Your task to perform on an android device: find snoozed emails in the gmail app Image 0: 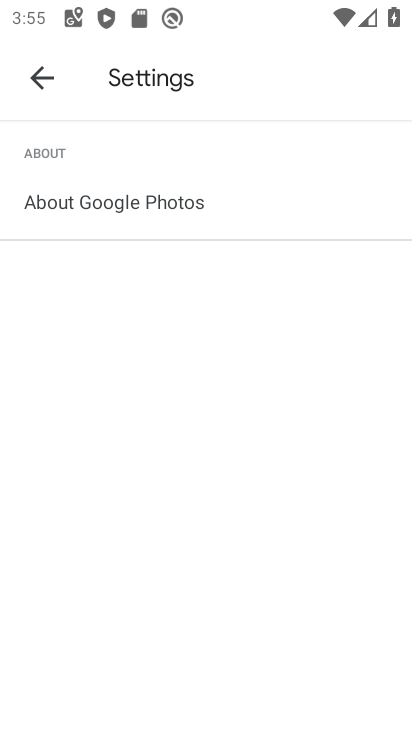
Step 0: press home button
Your task to perform on an android device: find snoozed emails in the gmail app Image 1: 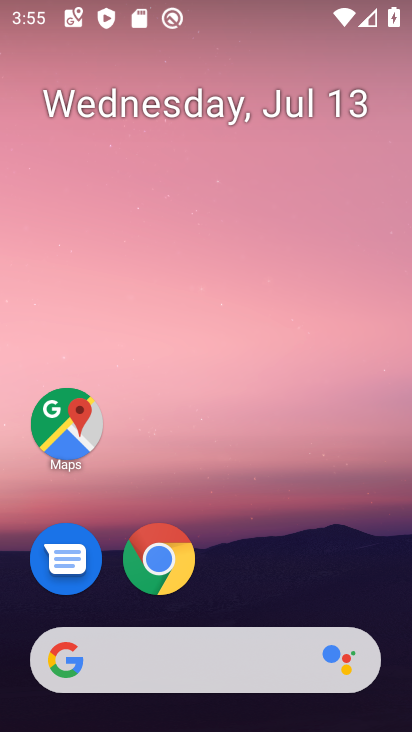
Step 1: drag from (274, 590) to (231, 103)
Your task to perform on an android device: find snoozed emails in the gmail app Image 2: 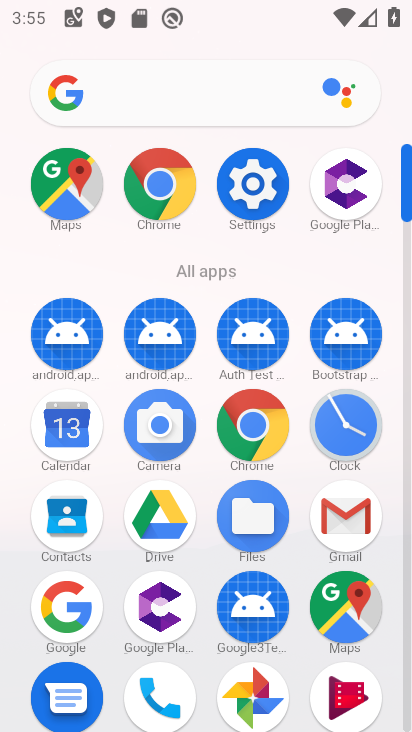
Step 2: click (339, 507)
Your task to perform on an android device: find snoozed emails in the gmail app Image 3: 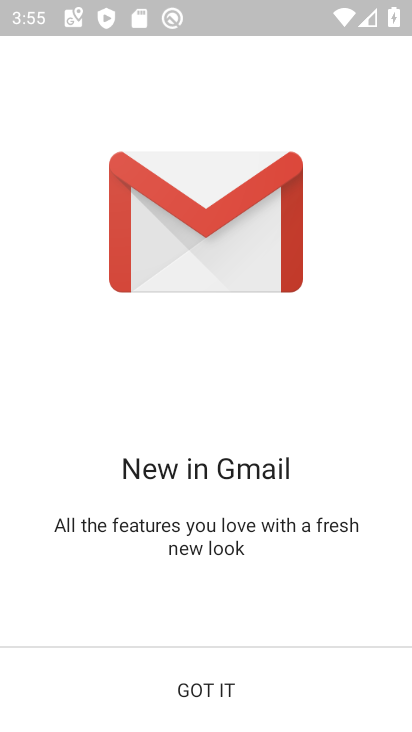
Step 3: click (216, 687)
Your task to perform on an android device: find snoozed emails in the gmail app Image 4: 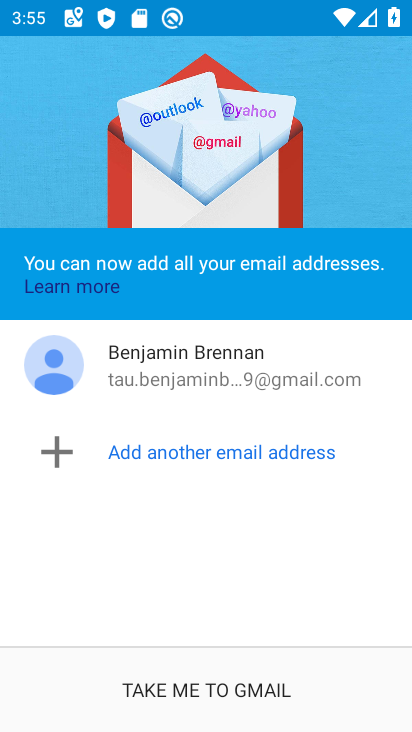
Step 4: click (185, 693)
Your task to perform on an android device: find snoozed emails in the gmail app Image 5: 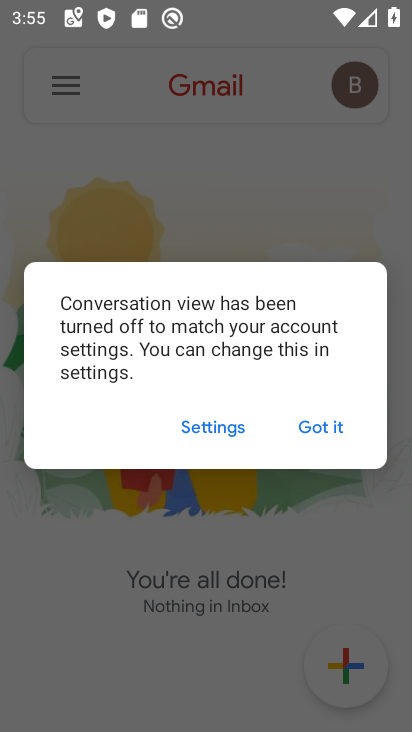
Step 5: click (325, 425)
Your task to perform on an android device: find snoozed emails in the gmail app Image 6: 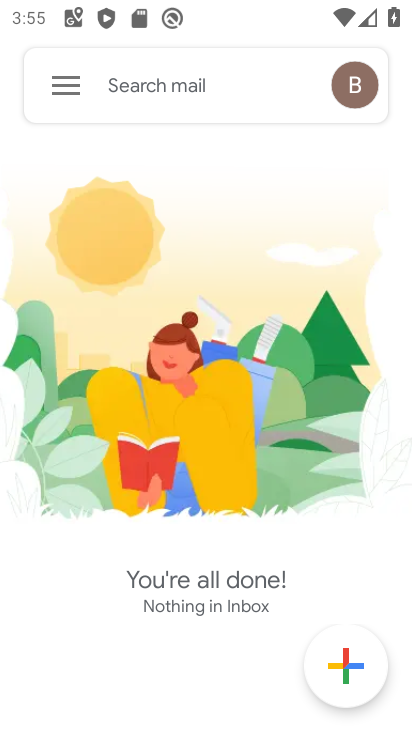
Step 6: click (48, 88)
Your task to perform on an android device: find snoozed emails in the gmail app Image 7: 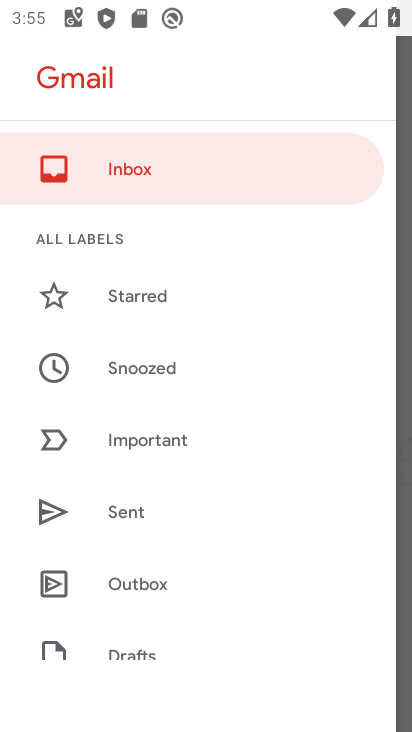
Step 7: click (153, 369)
Your task to perform on an android device: find snoozed emails in the gmail app Image 8: 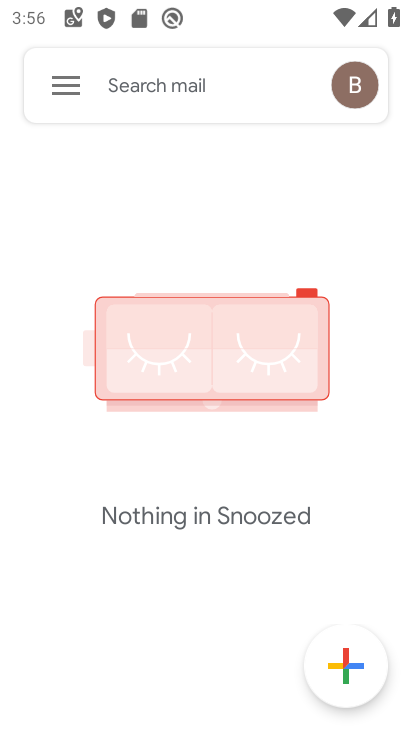
Step 8: task complete